Your task to perform on an android device: When is my next appointment? Image 0: 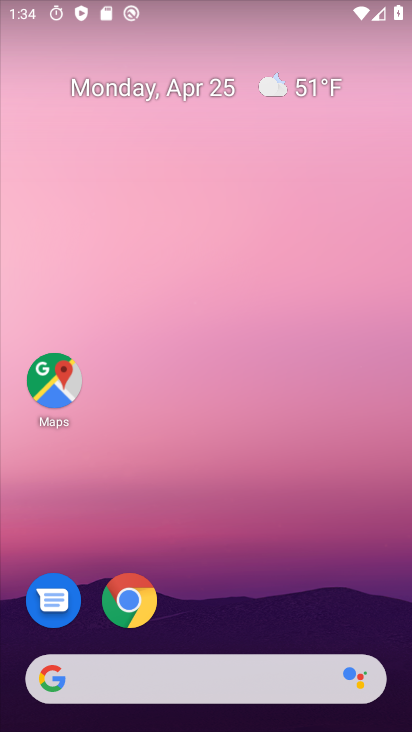
Step 0: drag from (193, 625) to (333, 3)
Your task to perform on an android device: When is my next appointment? Image 1: 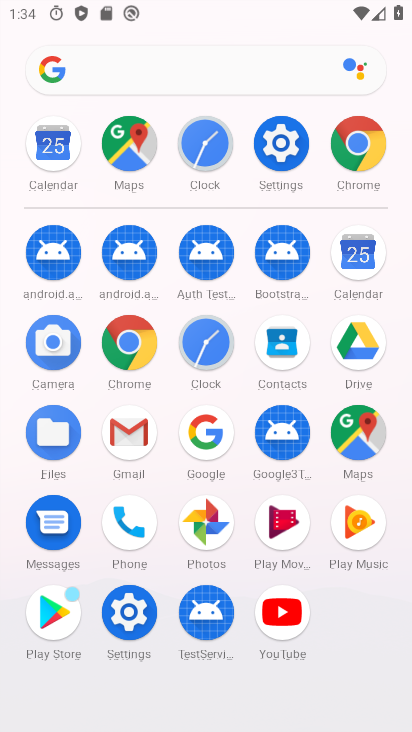
Step 1: click (52, 158)
Your task to perform on an android device: When is my next appointment? Image 2: 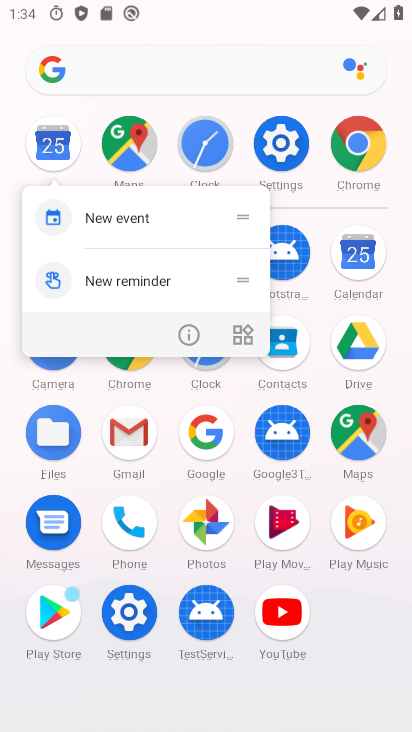
Step 2: click (54, 153)
Your task to perform on an android device: When is my next appointment? Image 3: 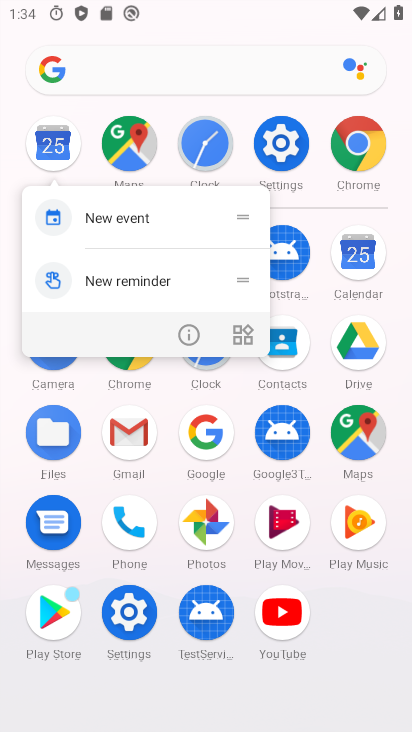
Step 3: click (54, 154)
Your task to perform on an android device: When is my next appointment? Image 4: 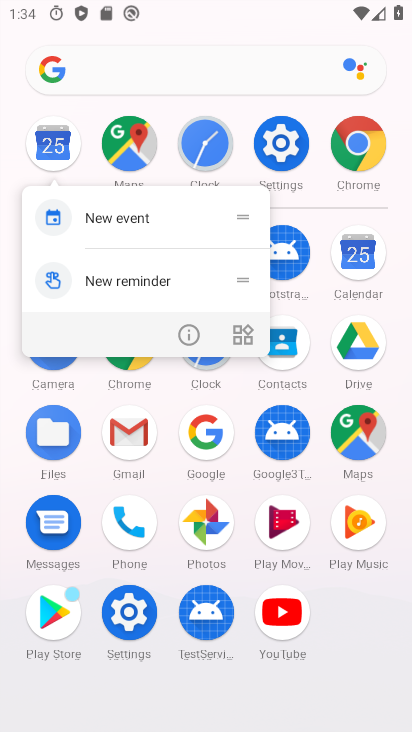
Step 4: click (54, 152)
Your task to perform on an android device: When is my next appointment? Image 5: 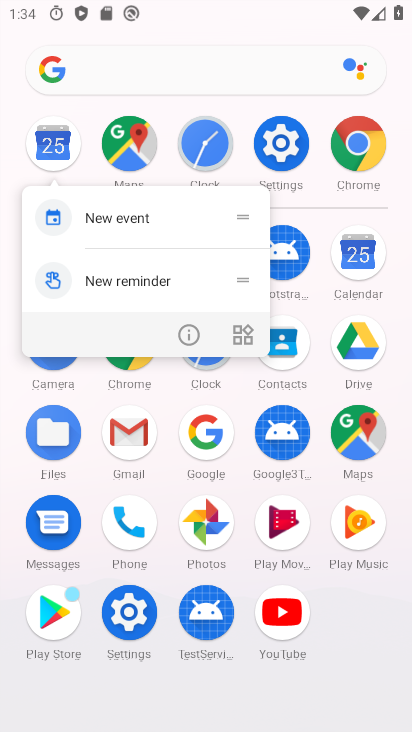
Step 5: click (57, 142)
Your task to perform on an android device: When is my next appointment? Image 6: 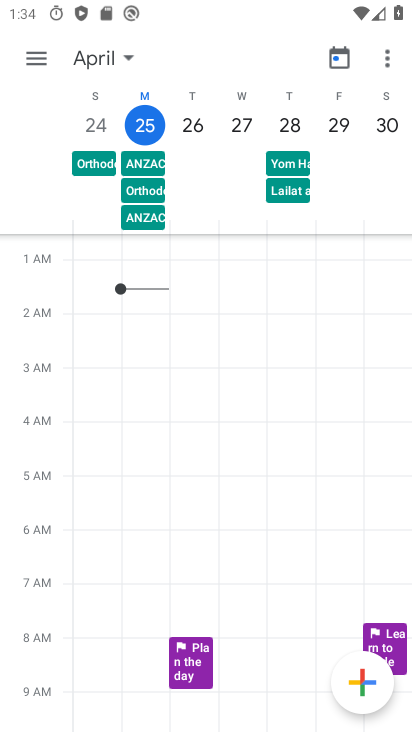
Step 6: click (98, 55)
Your task to perform on an android device: When is my next appointment? Image 7: 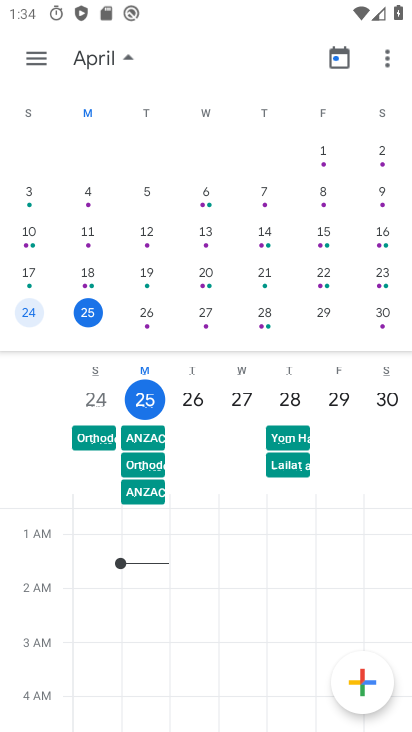
Step 7: click (95, 319)
Your task to perform on an android device: When is my next appointment? Image 8: 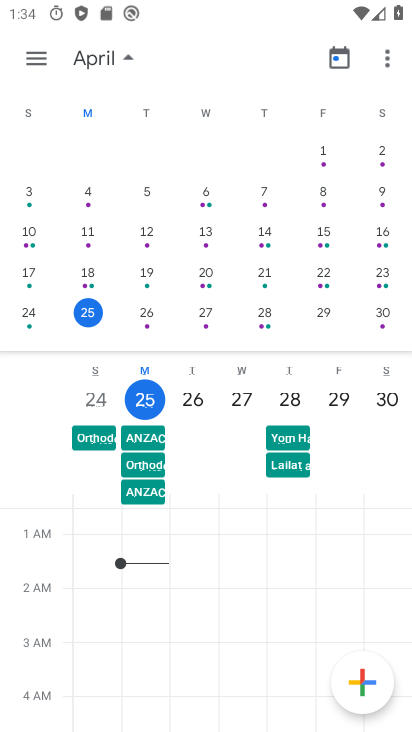
Step 8: click (39, 60)
Your task to perform on an android device: When is my next appointment? Image 9: 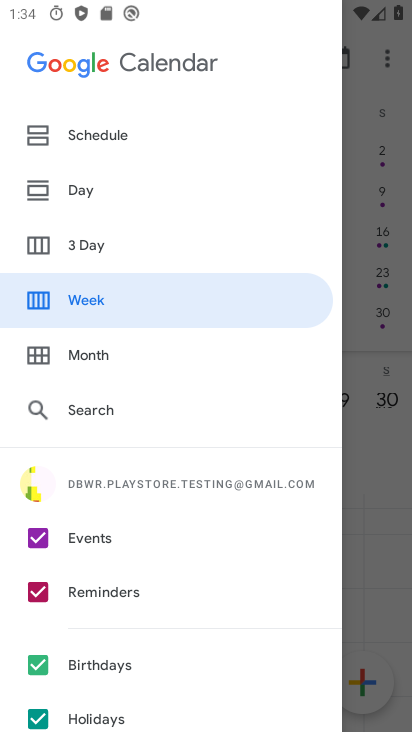
Step 9: click (74, 193)
Your task to perform on an android device: When is my next appointment? Image 10: 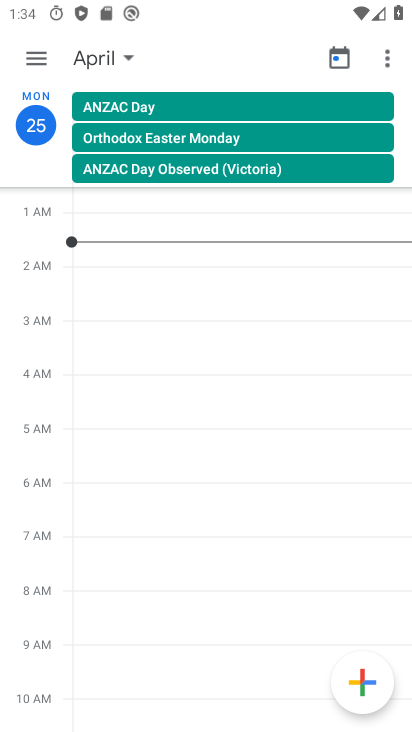
Step 10: click (36, 56)
Your task to perform on an android device: When is my next appointment? Image 11: 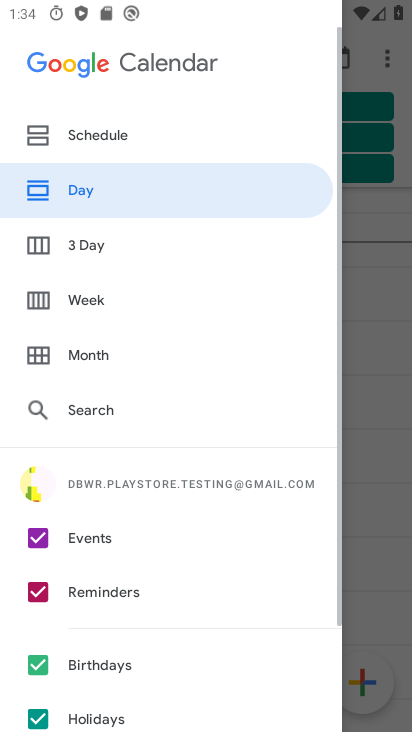
Step 11: click (100, 142)
Your task to perform on an android device: When is my next appointment? Image 12: 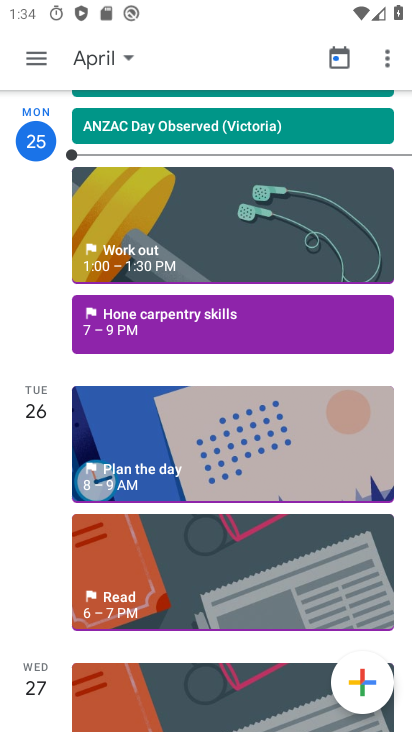
Step 12: click (167, 317)
Your task to perform on an android device: When is my next appointment? Image 13: 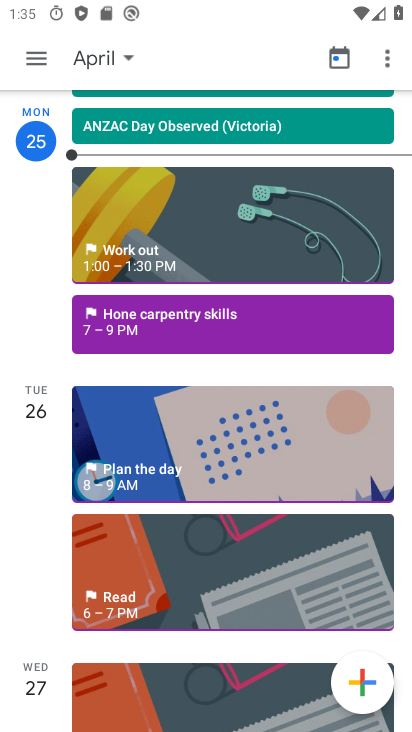
Step 13: click (167, 317)
Your task to perform on an android device: When is my next appointment? Image 14: 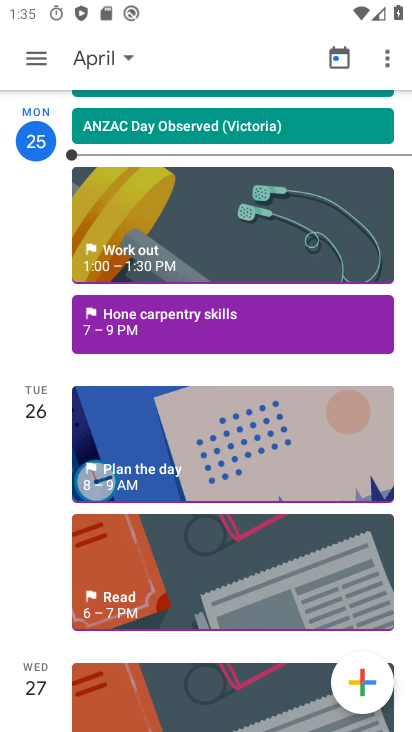
Step 14: click (151, 313)
Your task to perform on an android device: When is my next appointment? Image 15: 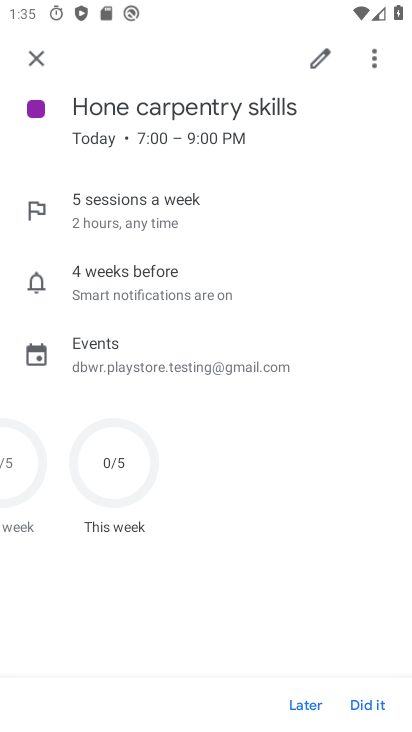
Step 15: task complete